Your task to perform on an android device: turn smart compose on in the gmail app Image 0: 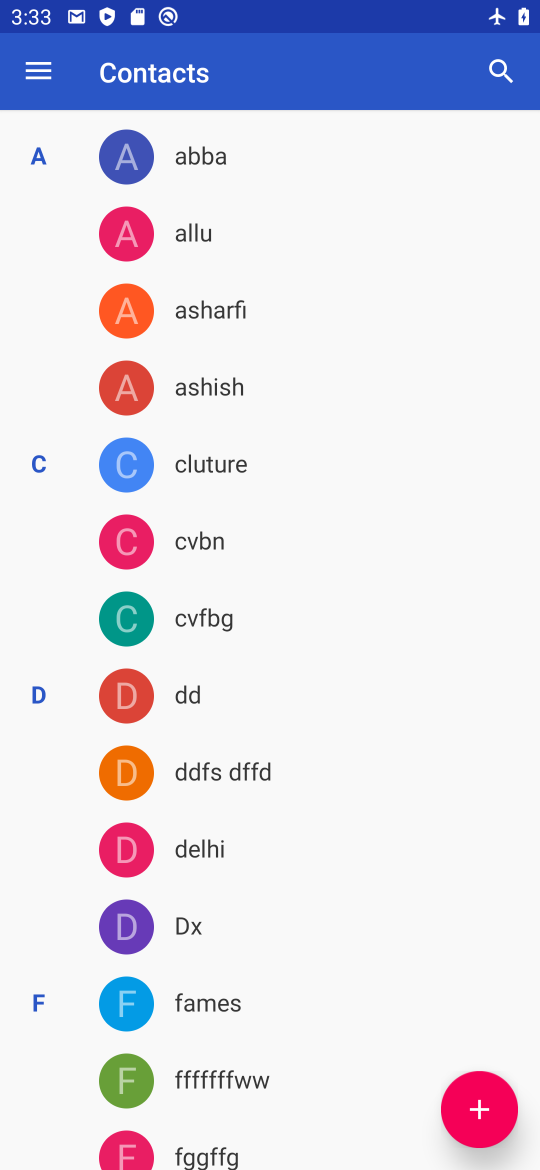
Step 0: press home button
Your task to perform on an android device: turn smart compose on in the gmail app Image 1: 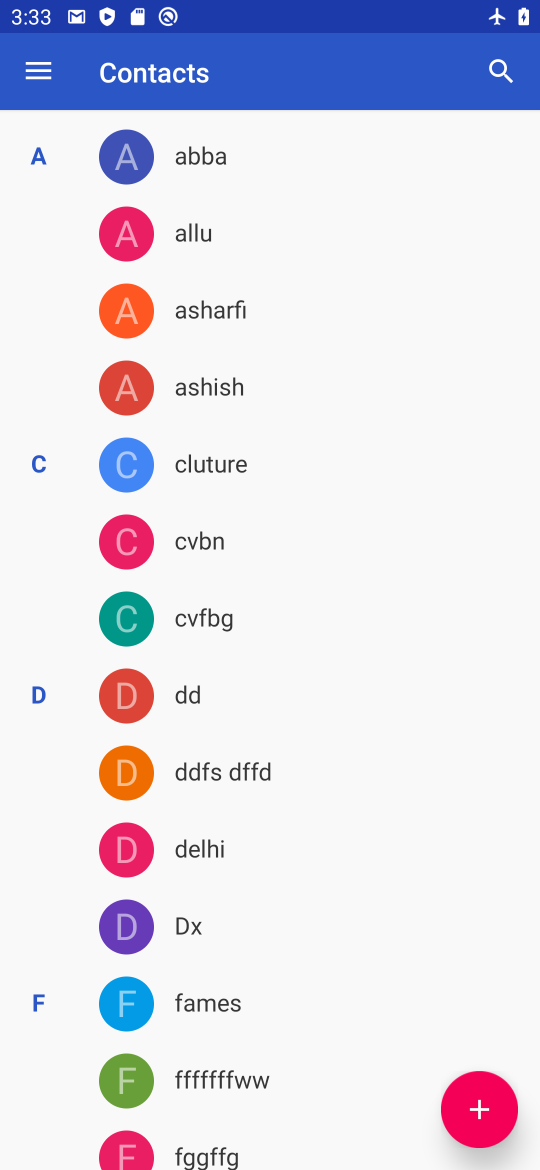
Step 1: press home button
Your task to perform on an android device: turn smart compose on in the gmail app Image 2: 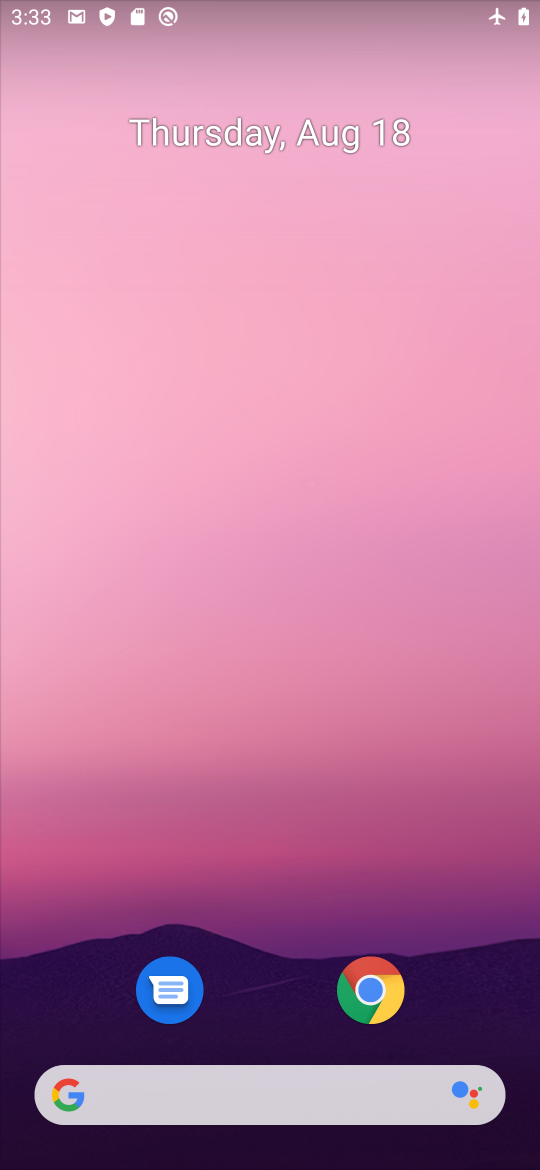
Step 2: drag from (264, 965) to (331, 195)
Your task to perform on an android device: turn smart compose on in the gmail app Image 3: 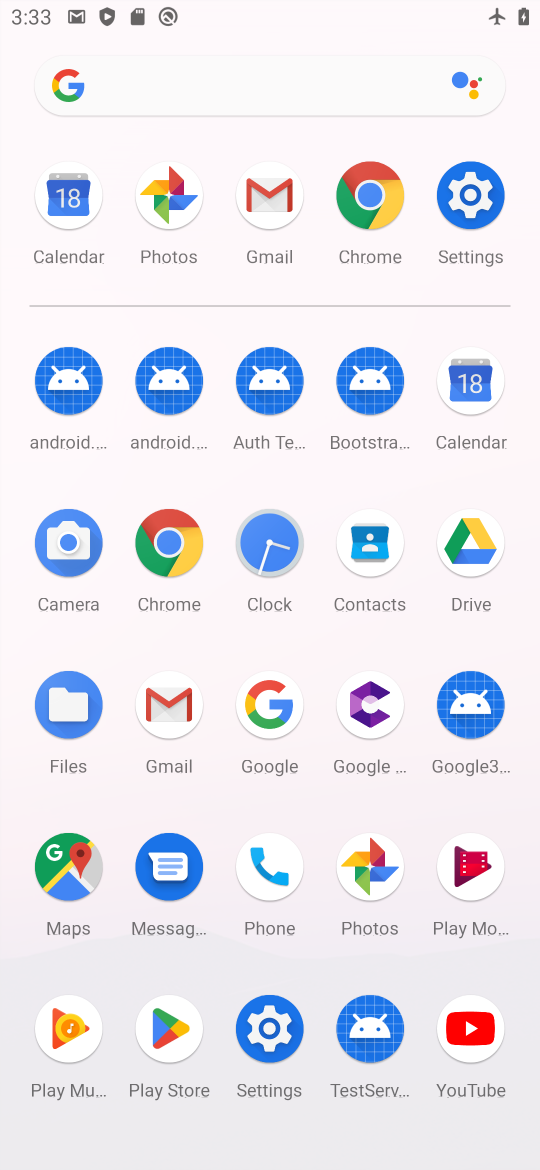
Step 3: click (169, 716)
Your task to perform on an android device: turn smart compose on in the gmail app Image 4: 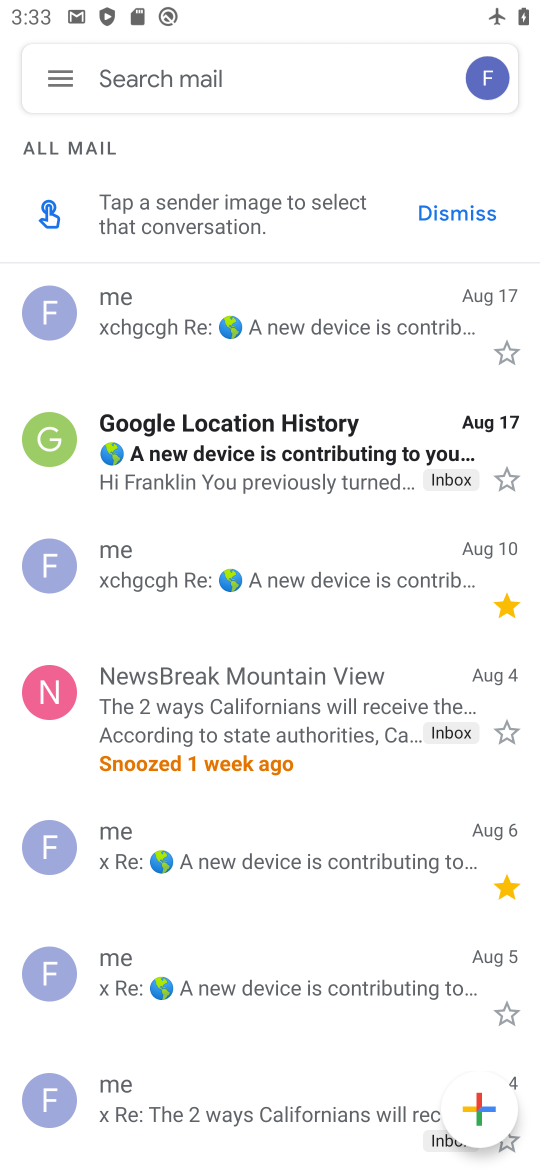
Step 4: click (58, 76)
Your task to perform on an android device: turn smart compose on in the gmail app Image 5: 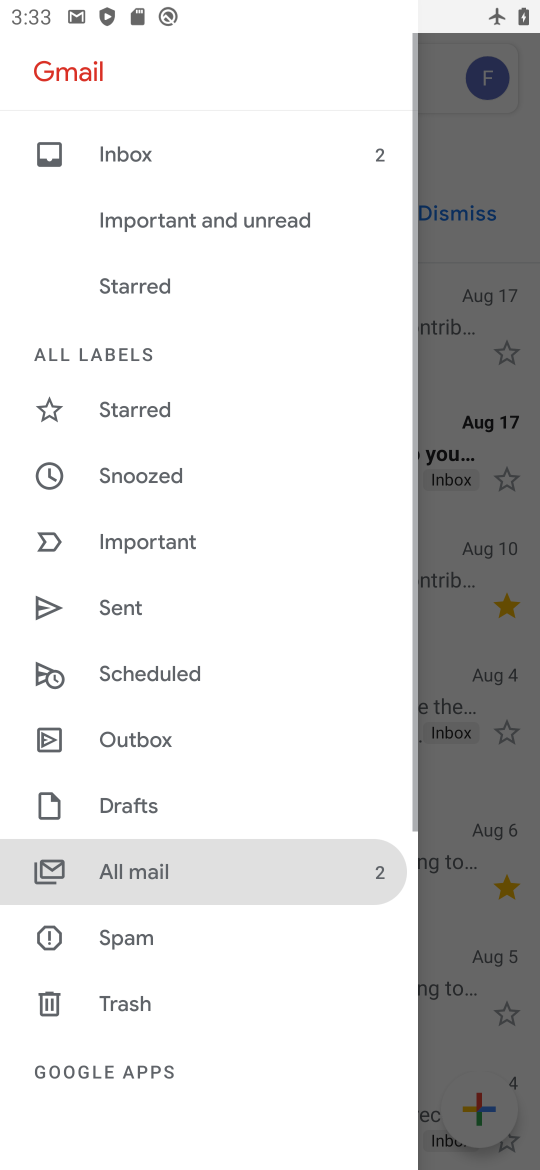
Step 5: drag from (174, 1002) to (369, 241)
Your task to perform on an android device: turn smart compose on in the gmail app Image 6: 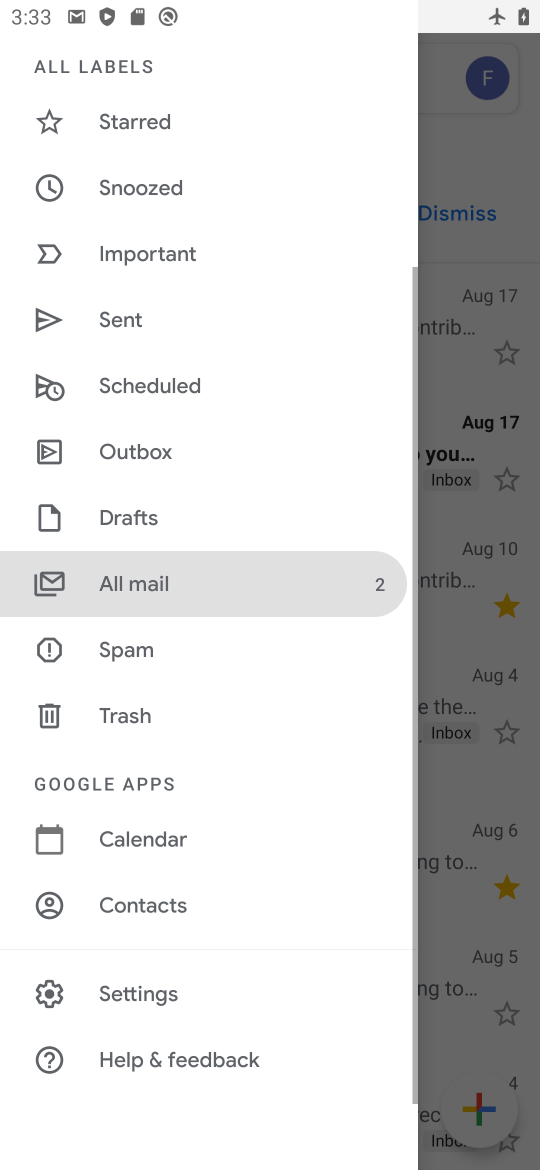
Step 6: click (149, 987)
Your task to perform on an android device: turn smart compose on in the gmail app Image 7: 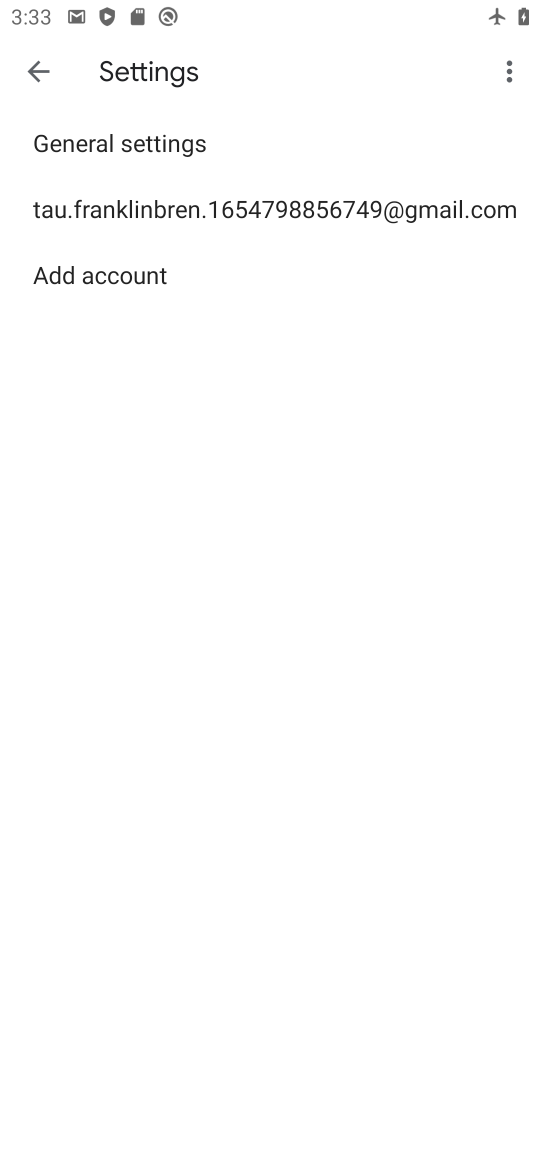
Step 7: click (236, 210)
Your task to perform on an android device: turn smart compose on in the gmail app Image 8: 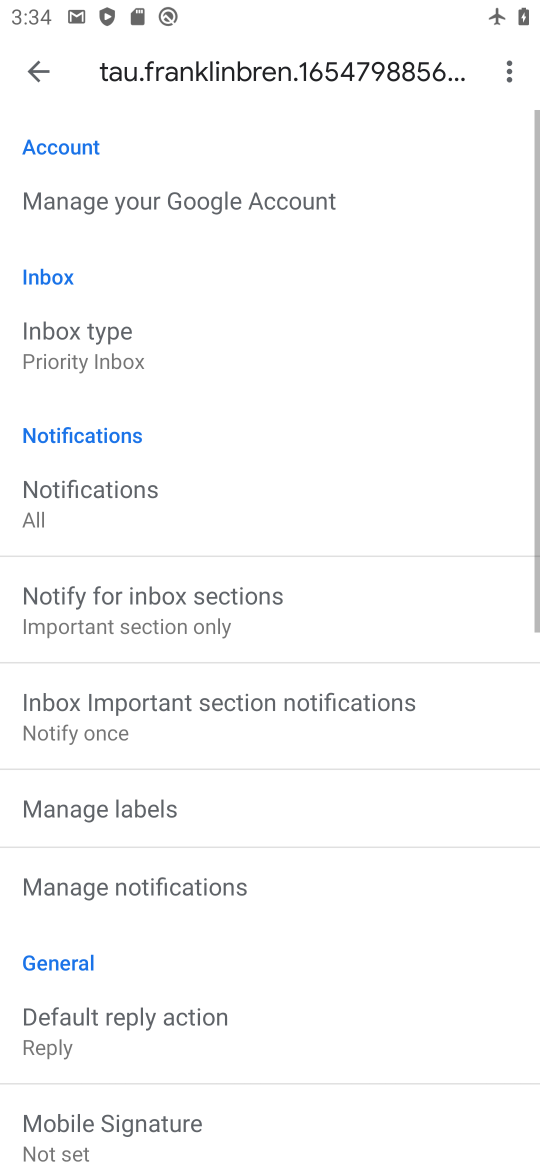
Step 8: task complete